Your task to perform on an android device: Open Youtube and go to "Your channel" Image 0: 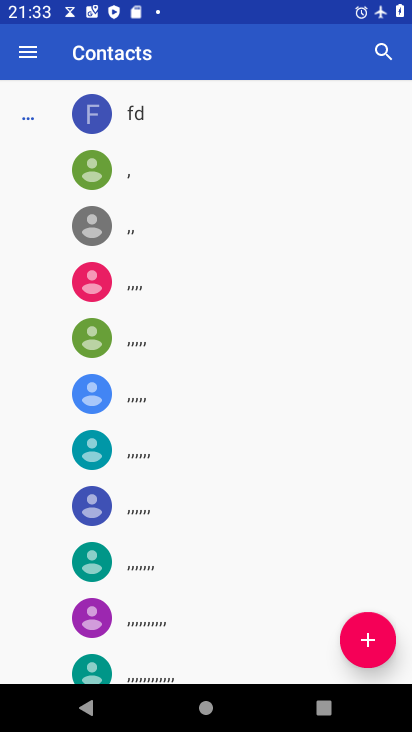
Step 0: press home button
Your task to perform on an android device: Open Youtube and go to "Your channel" Image 1: 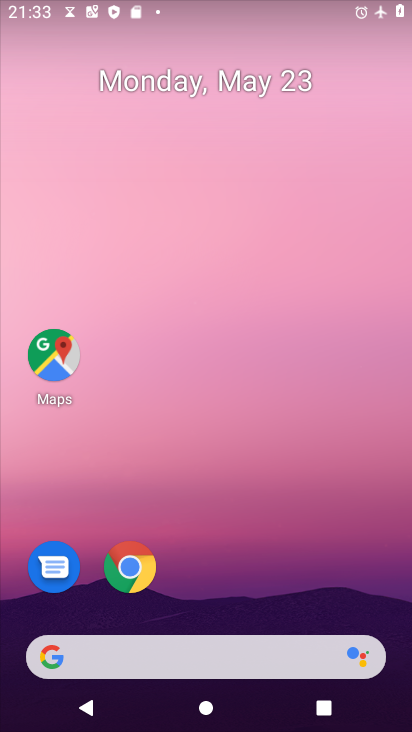
Step 1: drag from (306, 602) to (328, 301)
Your task to perform on an android device: Open Youtube and go to "Your channel" Image 2: 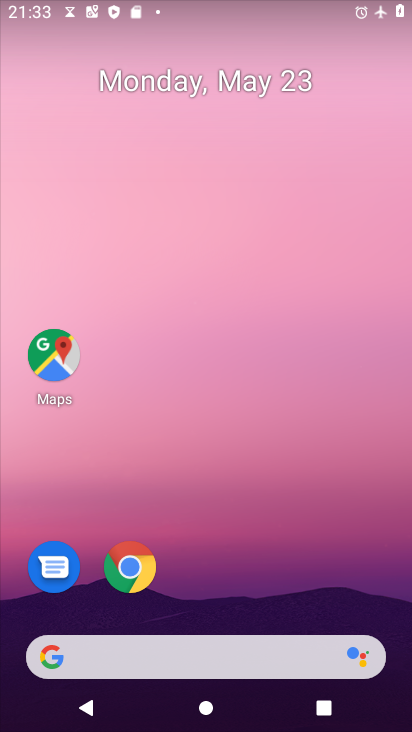
Step 2: drag from (298, 682) to (322, 304)
Your task to perform on an android device: Open Youtube and go to "Your channel" Image 3: 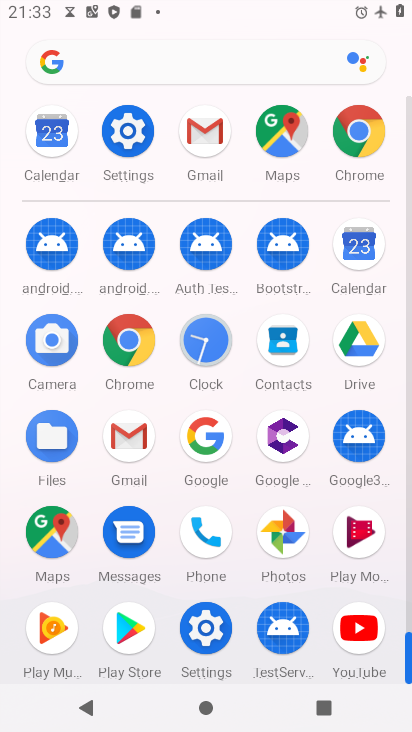
Step 3: click (349, 636)
Your task to perform on an android device: Open Youtube and go to "Your channel" Image 4: 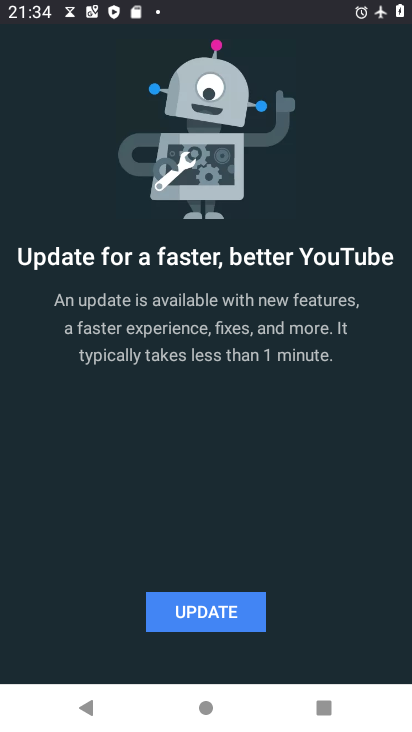
Step 4: task complete